Your task to perform on an android device: change the clock display to analog Image 0: 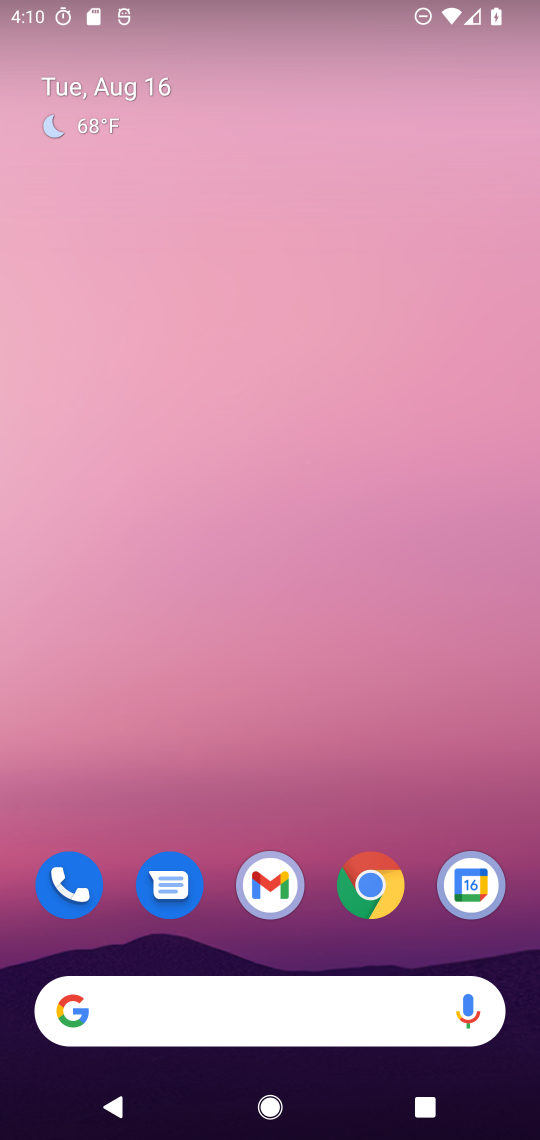
Step 0: drag from (184, 931) to (227, 523)
Your task to perform on an android device: change the clock display to analog Image 1: 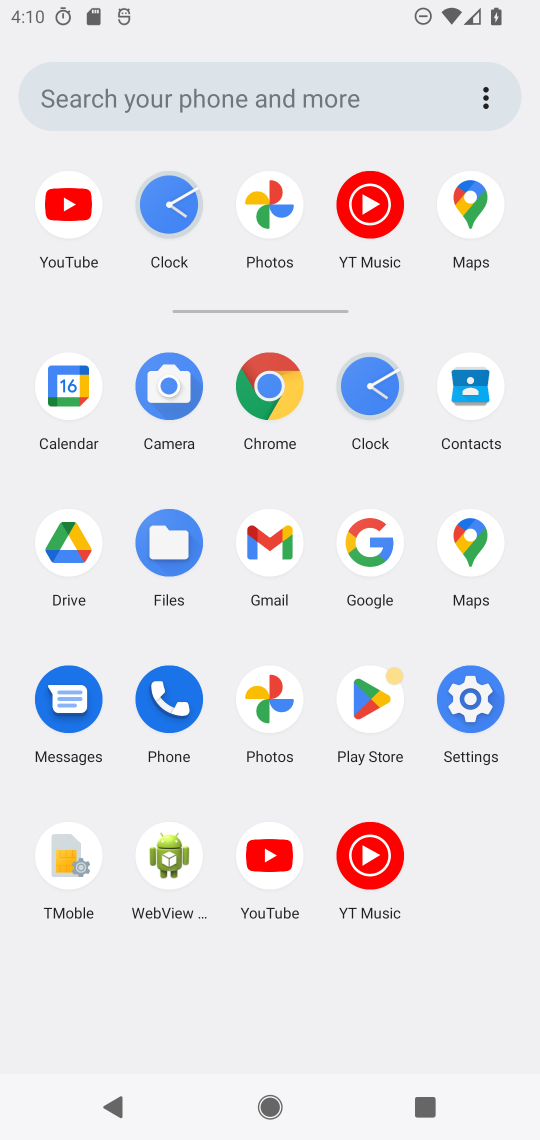
Step 1: click (384, 374)
Your task to perform on an android device: change the clock display to analog Image 2: 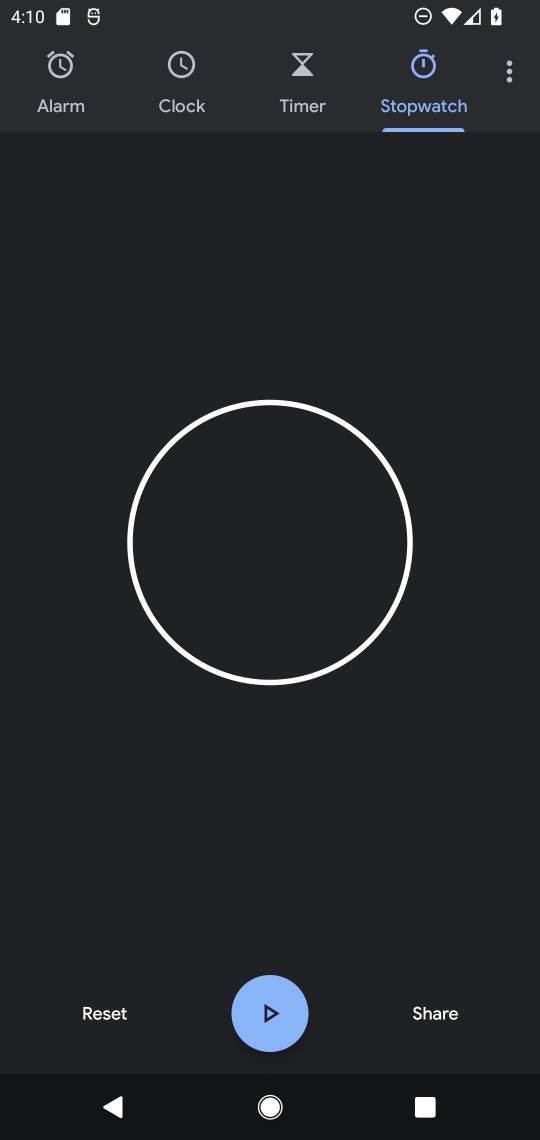
Step 2: click (507, 65)
Your task to perform on an android device: change the clock display to analog Image 3: 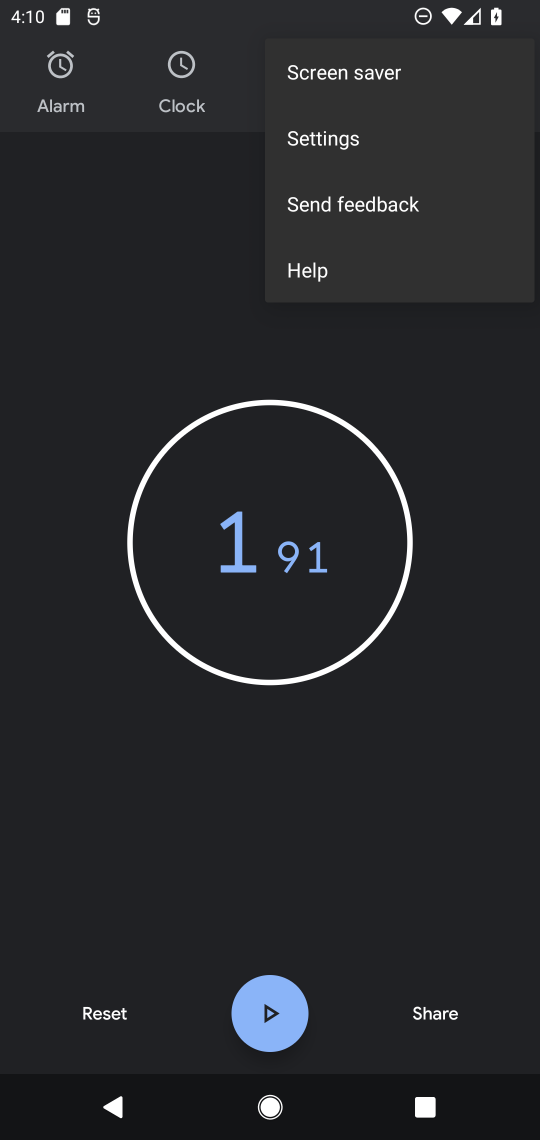
Step 3: click (325, 125)
Your task to perform on an android device: change the clock display to analog Image 4: 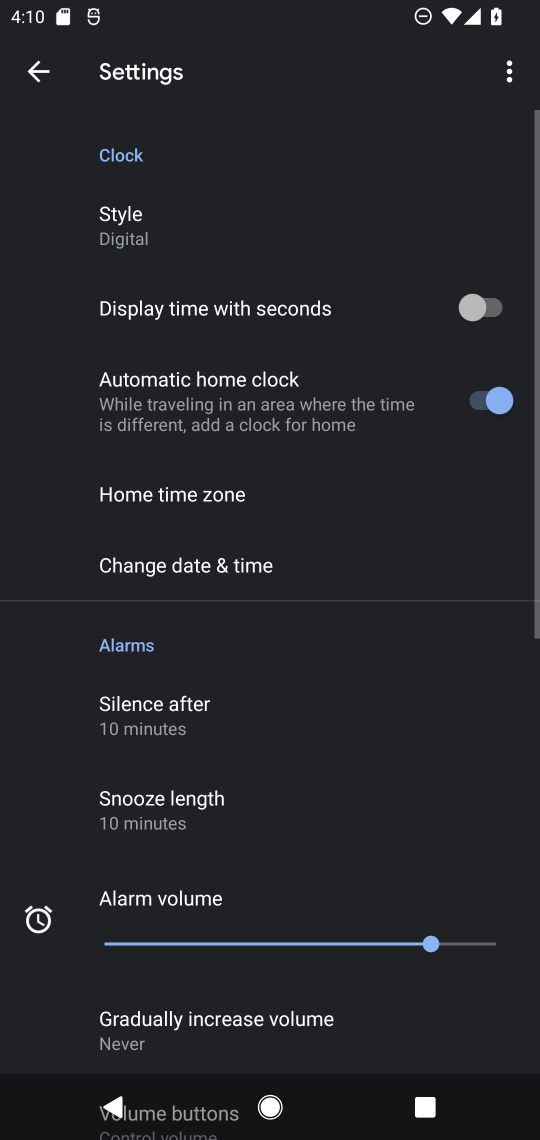
Step 4: click (163, 206)
Your task to perform on an android device: change the clock display to analog Image 5: 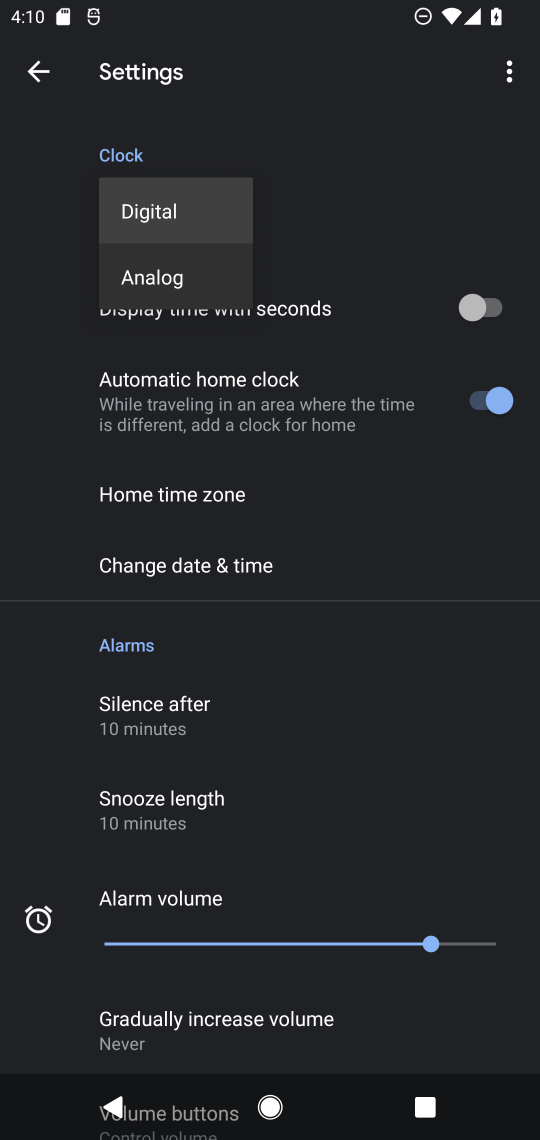
Step 5: click (168, 277)
Your task to perform on an android device: change the clock display to analog Image 6: 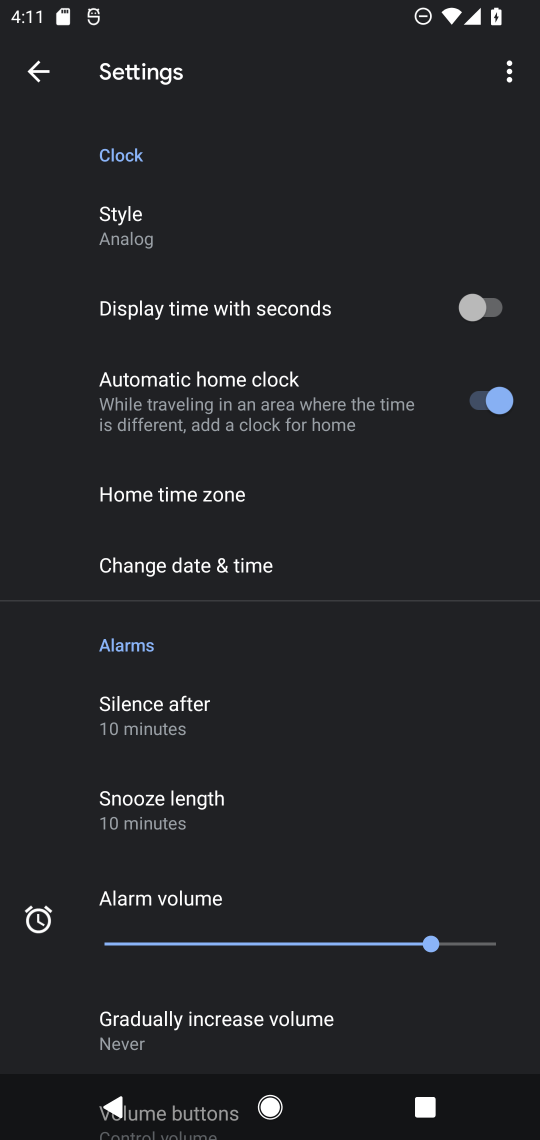
Step 6: task complete